Your task to perform on an android device: manage bookmarks in the chrome app Image 0: 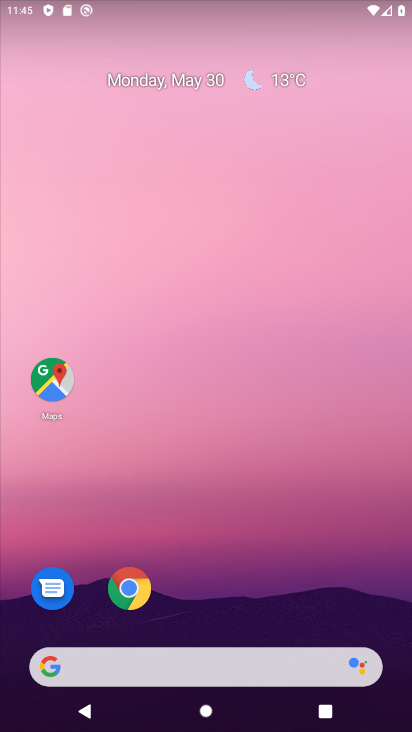
Step 0: click (134, 578)
Your task to perform on an android device: manage bookmarks in the chrome app Image 1: 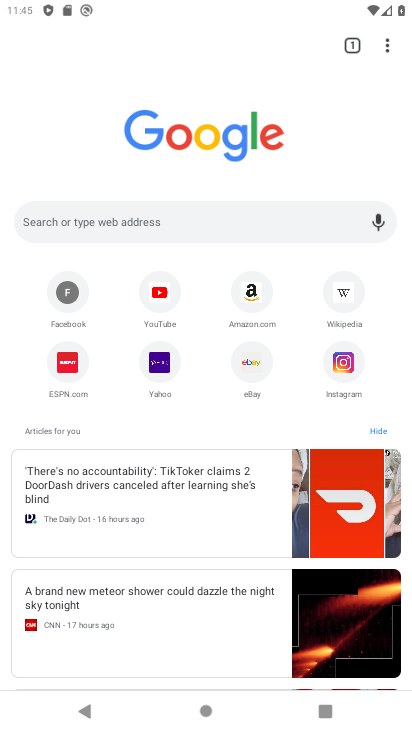
Step 1: click (389, 42)
Your task to perform on an android device: manage bookmarks in the chrome app Image 2: 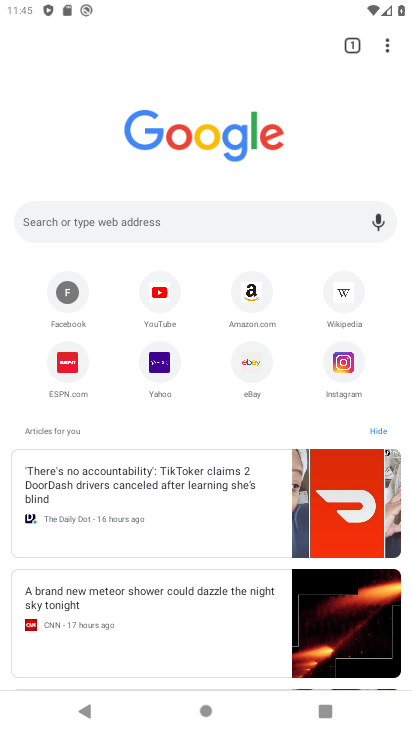
Step 2: click (389, 43)
Your task to perform on an android device: manage bookmarks in the chrome app Image 3: 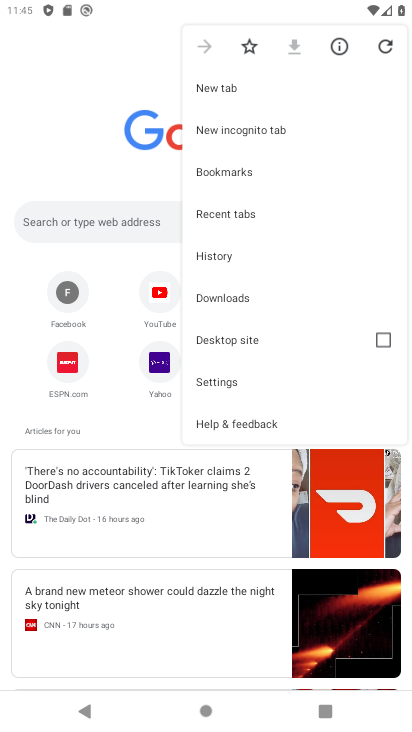
Step 3: click (226, 160)
Your task to perform on an android device: manage bookmarks in the chrome app Image 4: 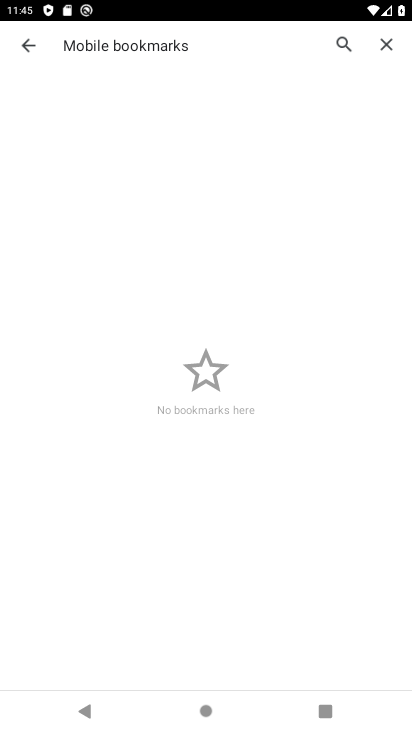
Step 4: task complete